Your task to perform on an android device: Open settings Image 0: 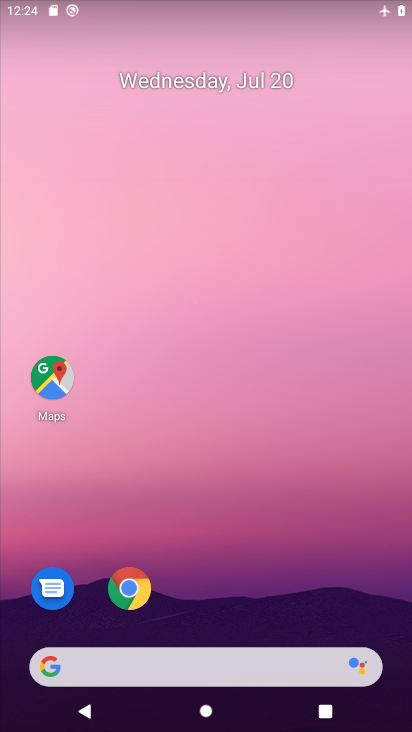
Step 0: drag from (302, 567) to (292, 154)
Your task to perform on an android device: Open settings Image 1: 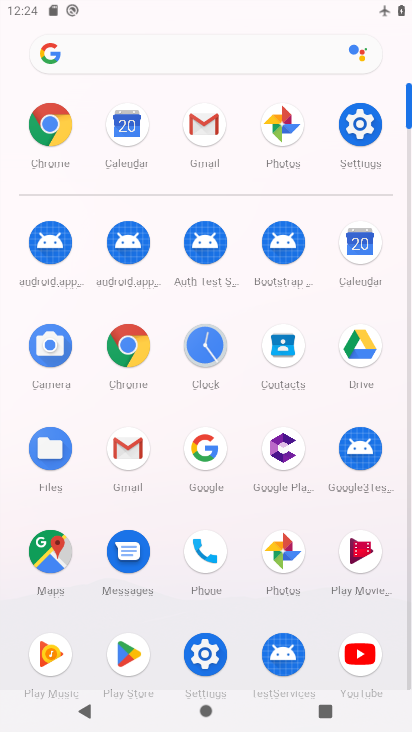
Step 1: click (357, 131)
Your task to perform on an android device: Open settings Image 2: 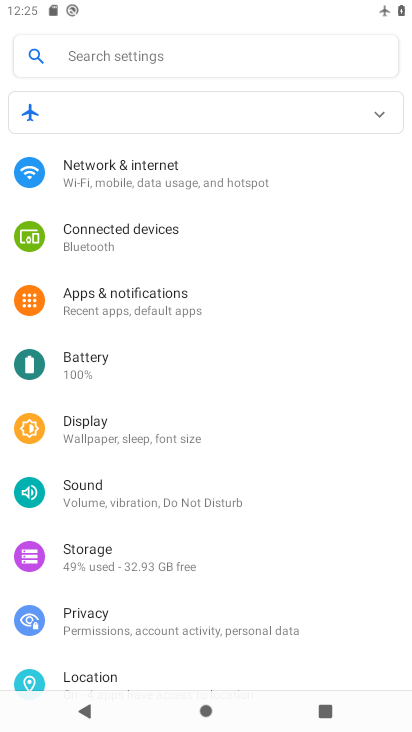
Step 2: task complete